Your task to perform on an android device: Do I have any events tomorrow? Image 0: 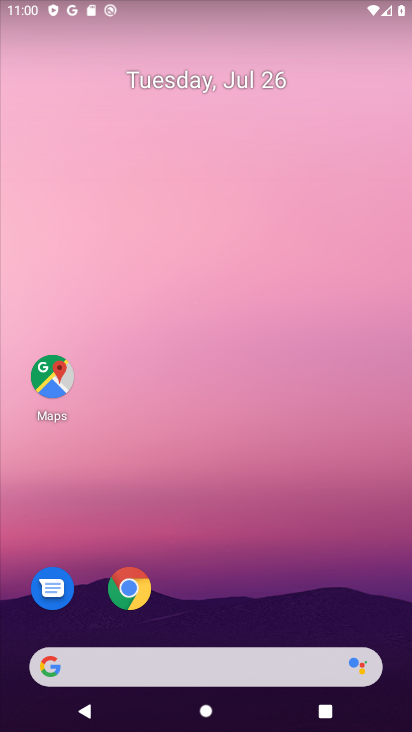
Step 0: press home button
Your task to perform on an android device: Do I have any events tomorrow? Image 1: 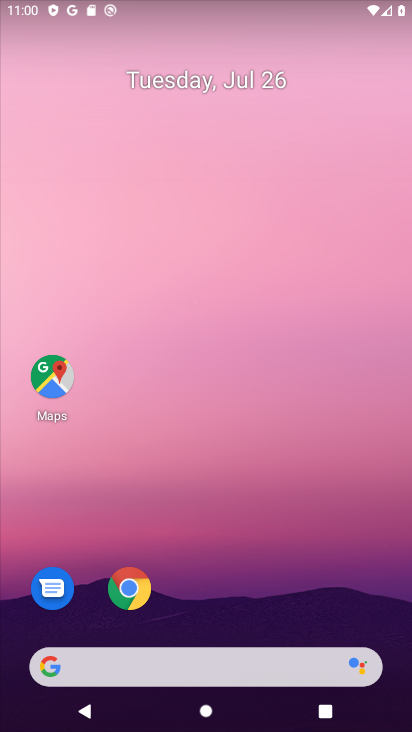
Step 1: drag from (214, 628) to (252, 27)
Your task to perform on an android device: Do I have any events tomorrow? Image 2: 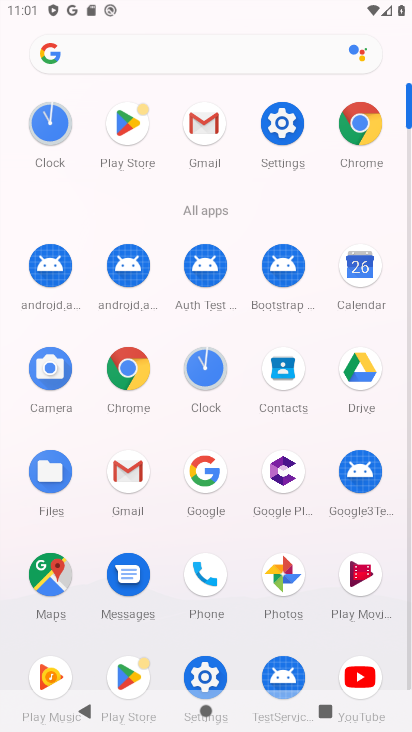
Step 2: click (361, 264)
Your task to perform on an android device: Do I have any events tomorrow? Image 3: 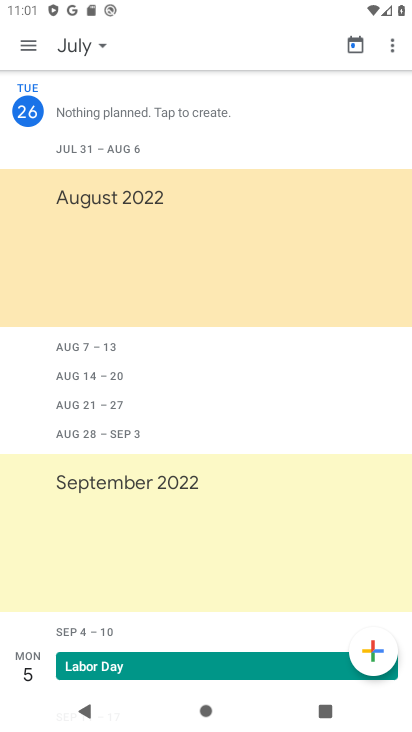
Step 3: click (25, 36)
Your task to perform on an android device: Do I have any events tomorrow? Image 4: 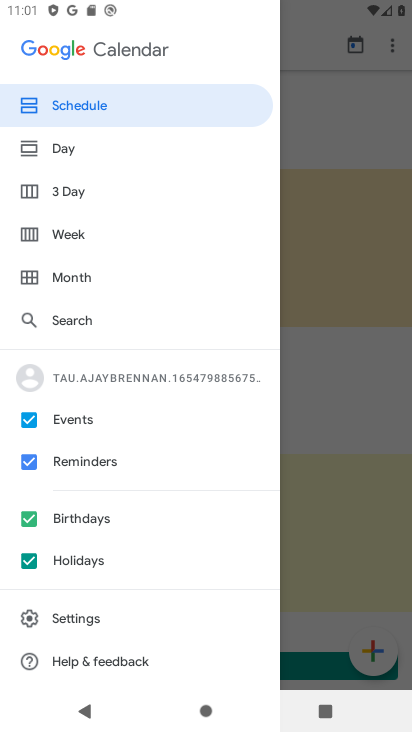
Step 4: click (29, 455)
Your task to perform on an android device: Do I have any events tomorrow? Image 5: 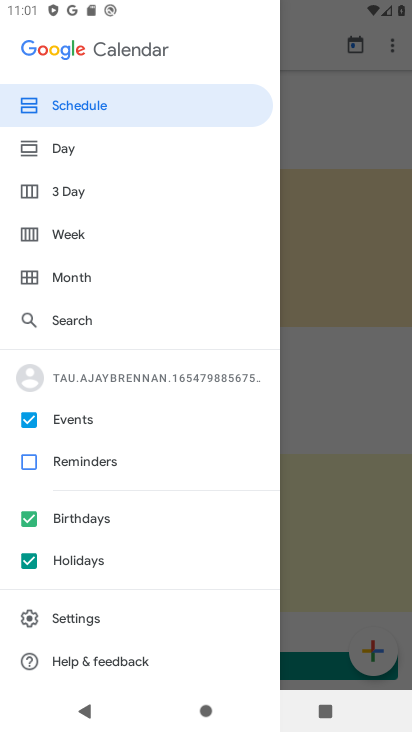
Step 5: click (27, 516)
Your task to perform on an android device: Do I have any events tomorrow? Image 6: 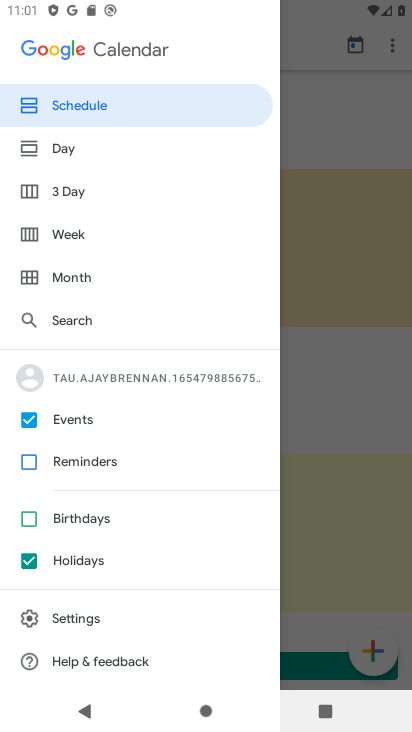
Step 6: click (25, 560)
Your task to perform on an android device: Do I have any events tomorrow? Image 7: 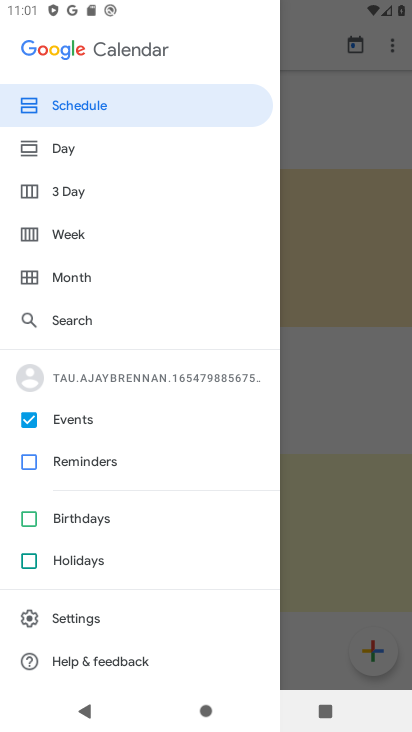
Step 7: click (43, 146)
Your task to perform on an android device: Do I have any events tomorrow? Image 8: 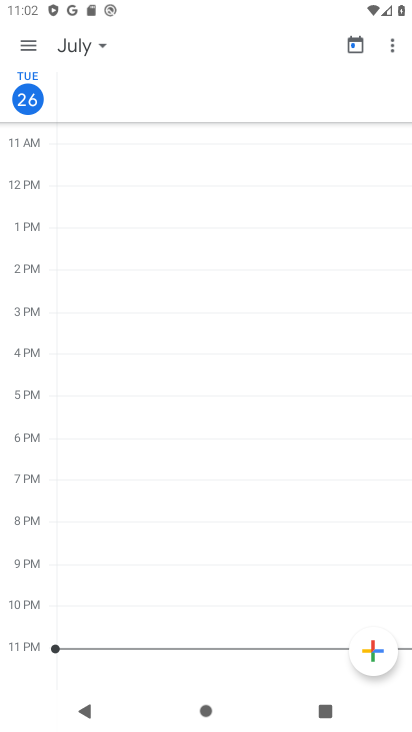
Step 8: click (42, 105)
Your task to perform on an android device: Do I have any events tomorrow? Image 9: 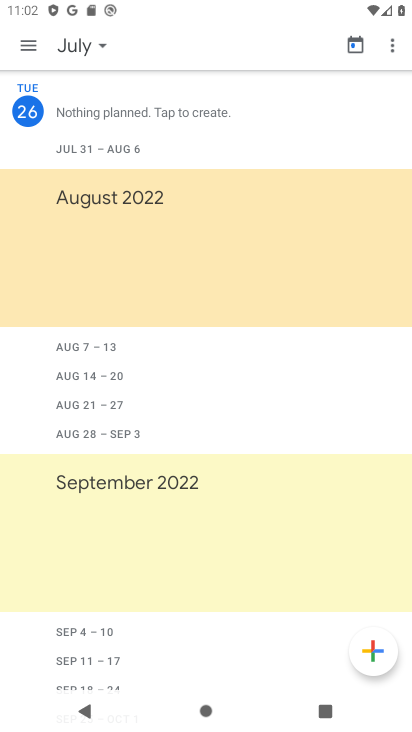
Step 9: click (100, 39)
Your task to perform on an android device: Do I have any events tomorrow? Image 10: 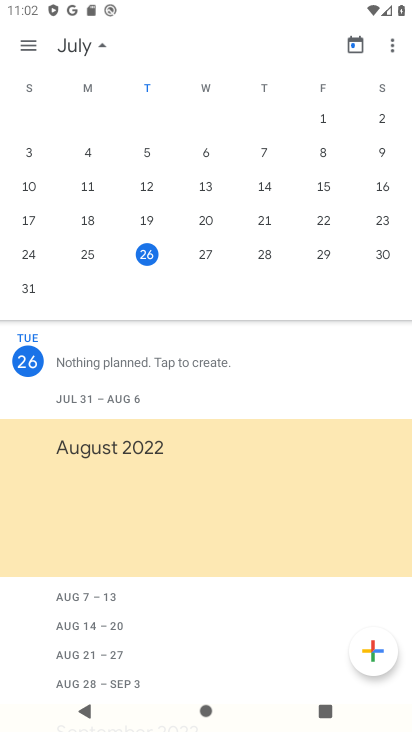
Step 10: click (198, 250)
Your task to perform on an android device: Do I have any events tomorrow? Image 11: 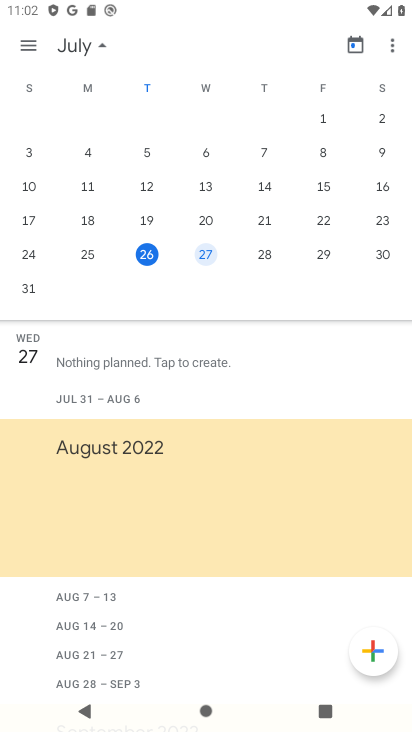
Step 11: click (37, 353)
Your task to perform on an android device: Do I have any events tomorrow? Image 12: 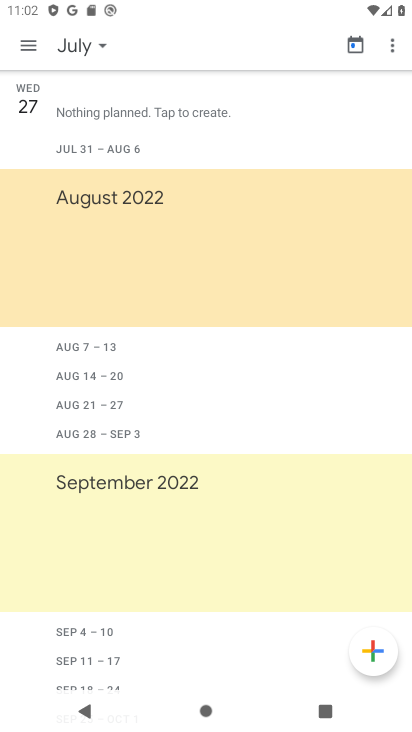
Step 12: click (36, 95)
Your task to perform on an android device: Do I have any events tomorrow? Image 13: 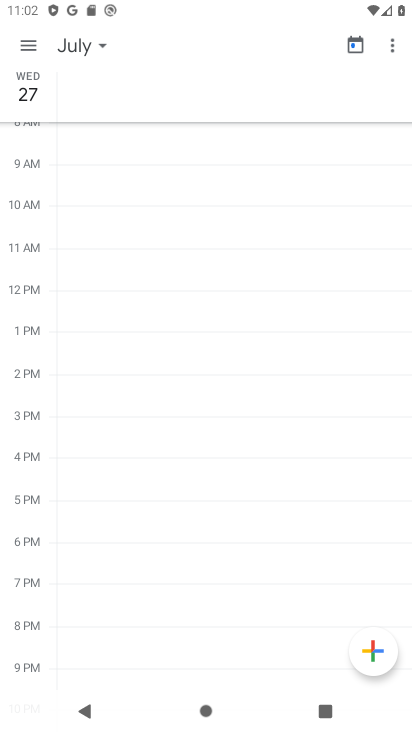
Step 13: task complete